Your task to perform on an android device: Show me the alarms in the clock app Image 0: 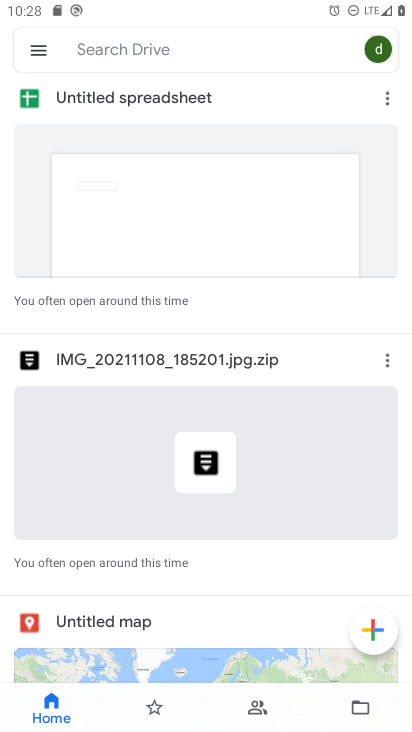
Step 0: press home button
Your task to perform on an android device: Show me the alarms in the clock app Image 1: 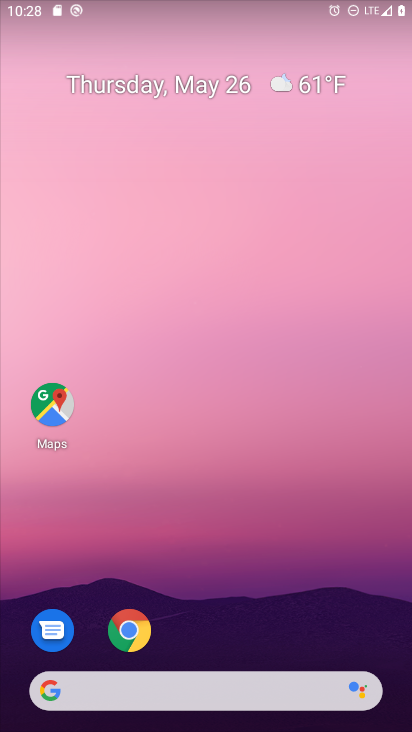
Step 1: drag from (193, 662) to (6, 14)
Your task to perform on an android device: Show me the alarms in the clock app Image 2: 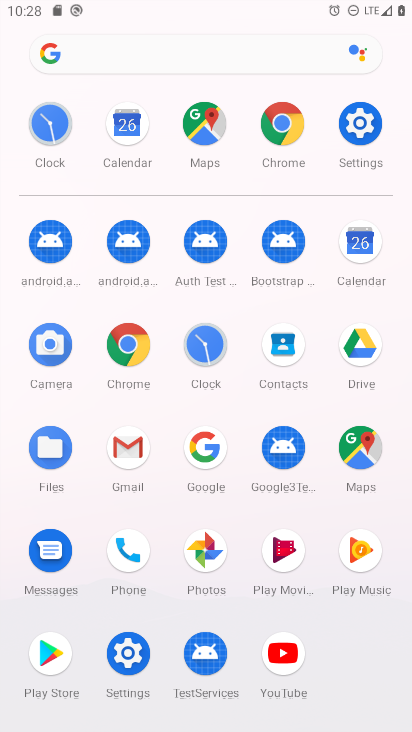
Step 2: click (218, 343)
Your task to perform on an android device: Show me the alarms in the clock app Image 3: 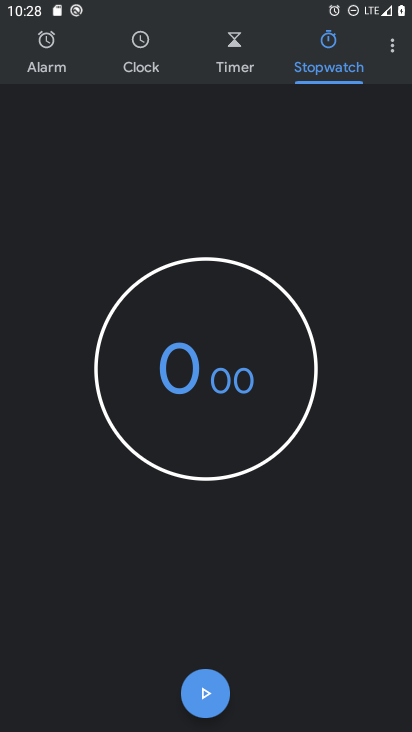
Step 3: click (57, 44)
Your task to perform on an android device: Show me the alarms in the clock app Image 4: 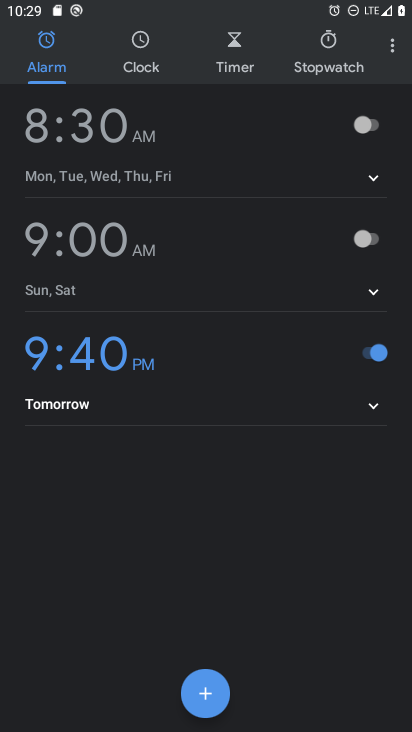
Step 4: task complete